Your task to perform on an android device: Toggle the flashlight Image 0: 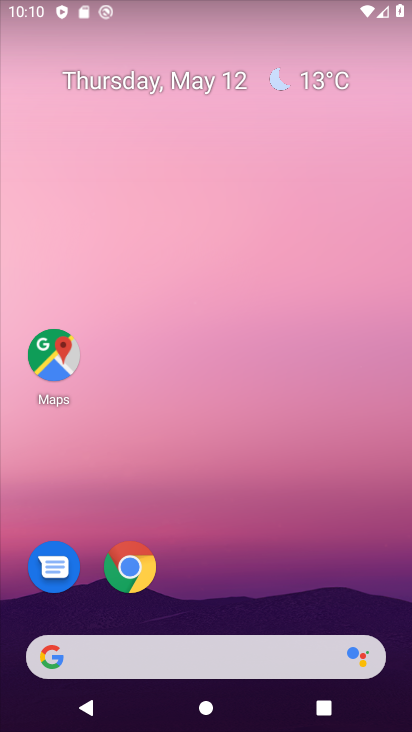
Step 0: drag from (285, 473) to (297, 51)
Your task to perform on an android device: Toggle the flashlight Image 1: 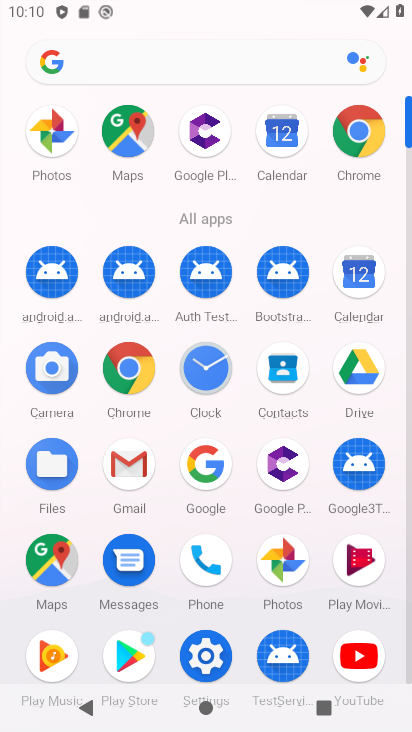
Step 1: click (225, 650)
Your task to perform on an android device: Toggle the flashlight Image 2: 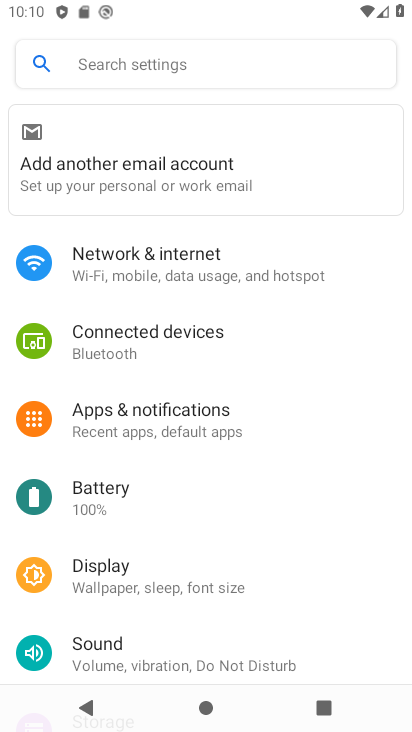
Step 2: click (227, 76)
Your task to perform on an android device: Toggle the flashlight Image 3: 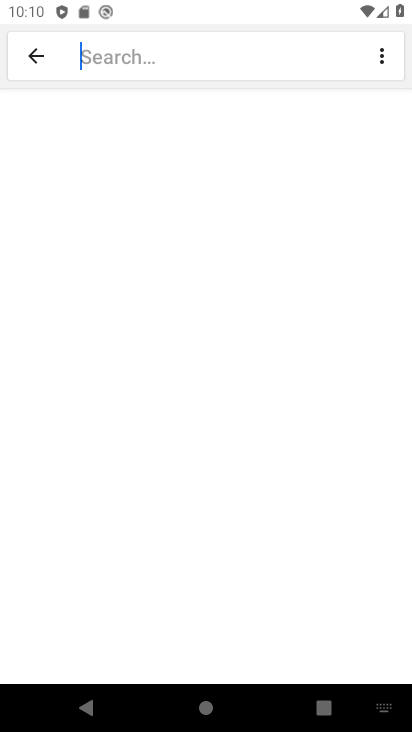
Step 3: type ""
Your task to perform on an android device: Toggle the flashlight Image 4: 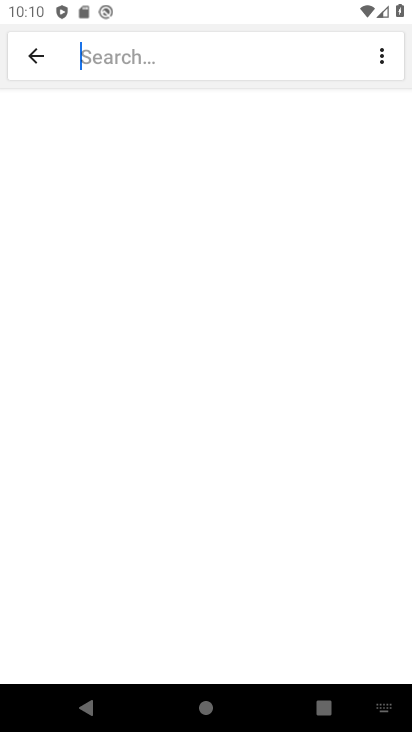
Step 4: type ""
Your task to perform on an android device: Toggle the flashlight Image 5: 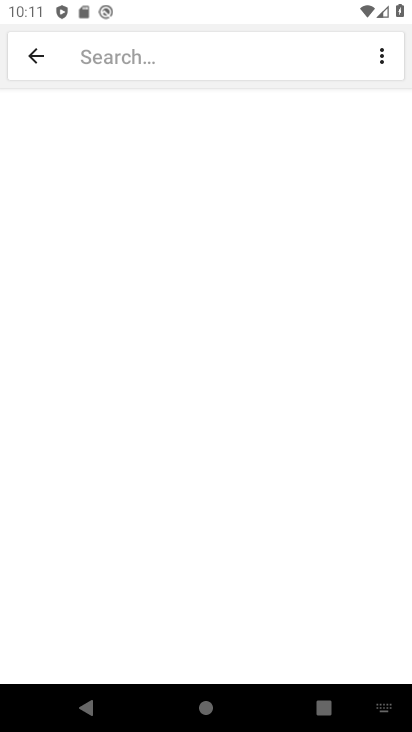
Step 5: type "/flashlight"
Your task to perform on an android device: Toggle the flashlight Image 6: 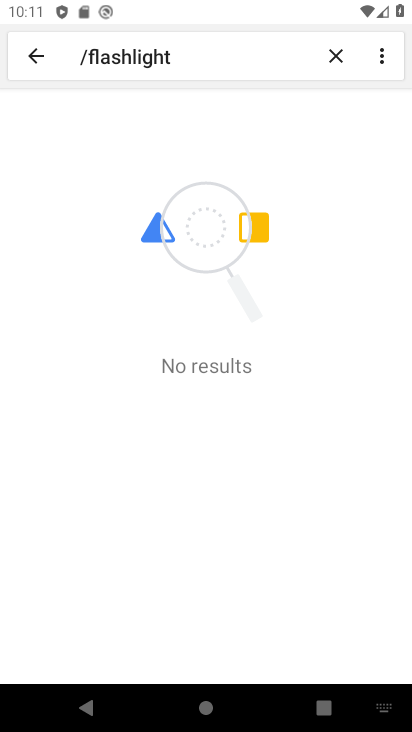
Step 6: click (339, 56)
Your task to perform on an android device: Toggle the flashlight Image 7: 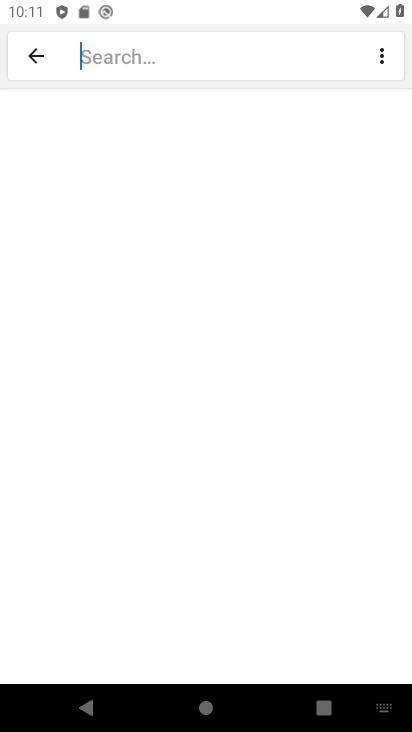
Step 7: type "flashlight"
Your task to perform on an android device: Toggle the flashlight Image 8: 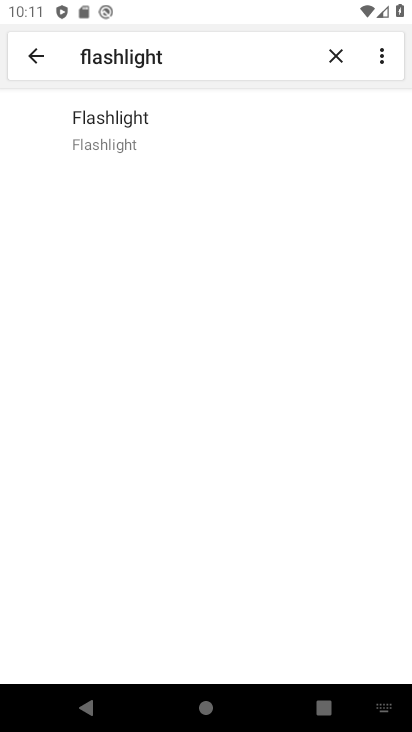
Step 8: click (141, 124)
Your task to perform on an android device: Toggle the flashlight Image 9: 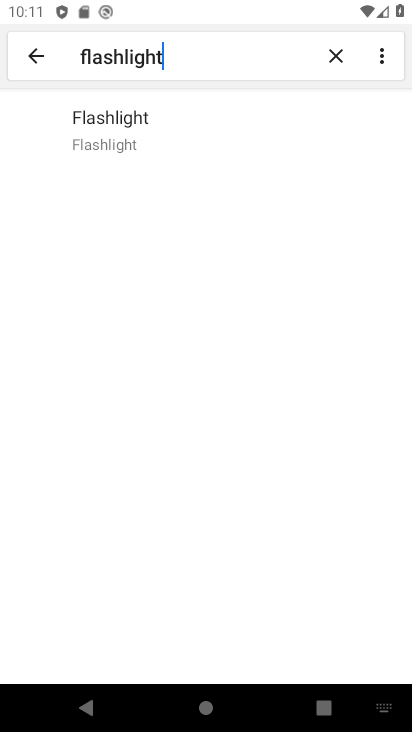
Step 9: task complete